Your task to perform on an android device: turn off smart reply in the gmail app Image 0: 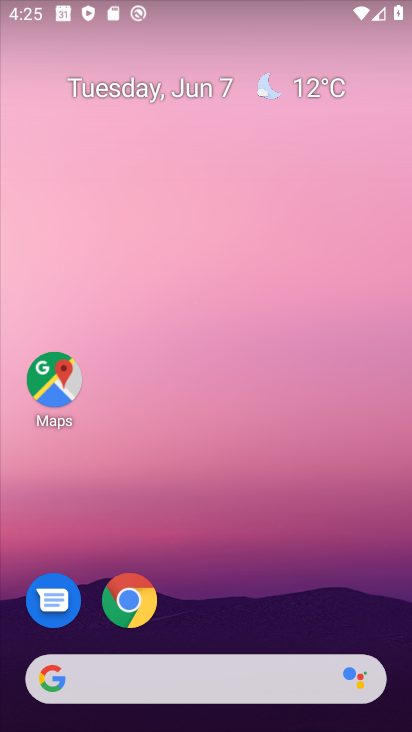
Step 0: drag from (212, 651) to (206, 306)
Your task to perform on an android device: turn off smart reply in the gmail app Image 1: 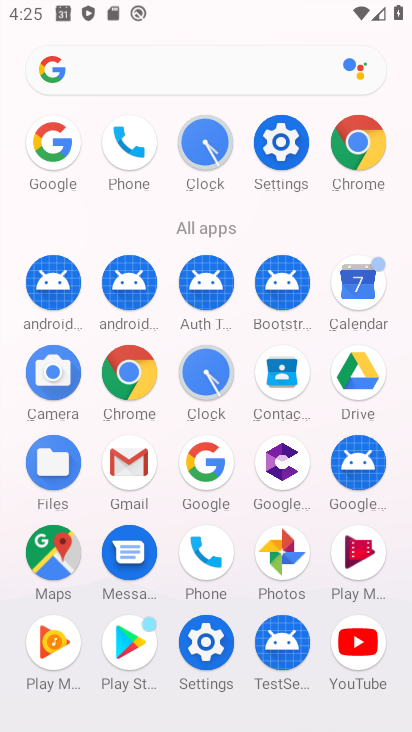
Step 1: click (142, 468)
Your task to perform on an android device: turn off smart reply in the gmail app Image 2: 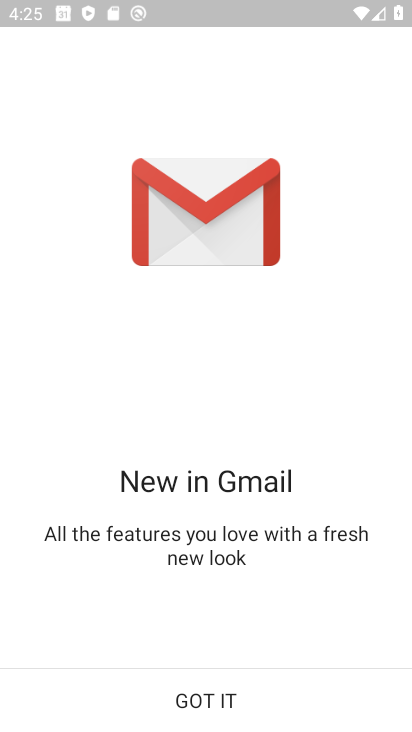
Step 2: click (180, 707)
Your task to perform on an android device: turn off smart reply in the gmail app Image 3: 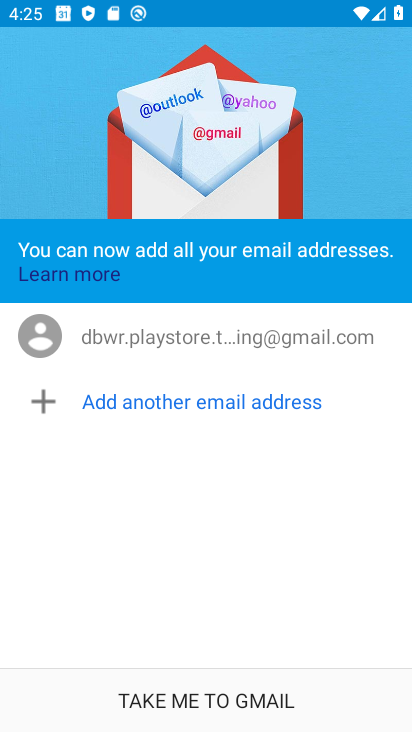
Step 3: click (180, 707)
Your task to perform on an android device: turn off smart reply in the gmail app Image 4: 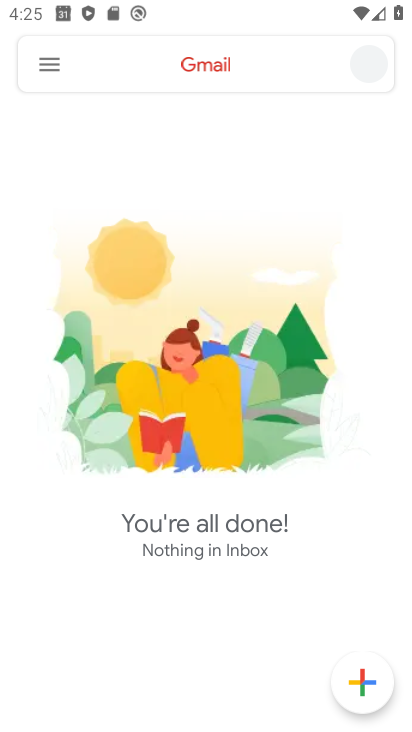
Step 4: click (55, 62)
Your task to perform on an android device: turn off smart reply in the gmail app Image 5: 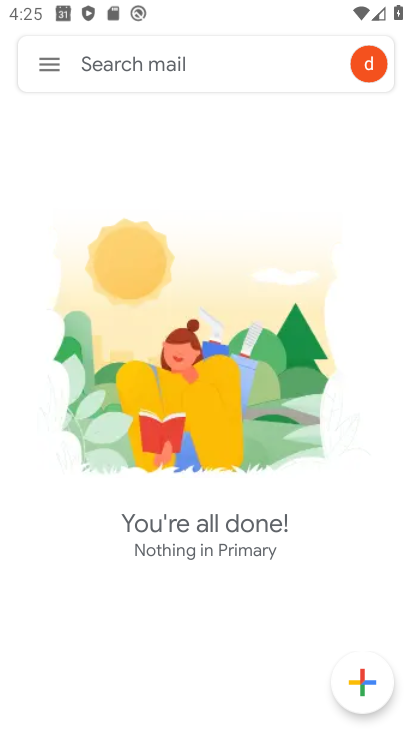
Step 5: click (46, 74)
Your task to perform on an android device: turn off smart reply in the gmail app Image 6: 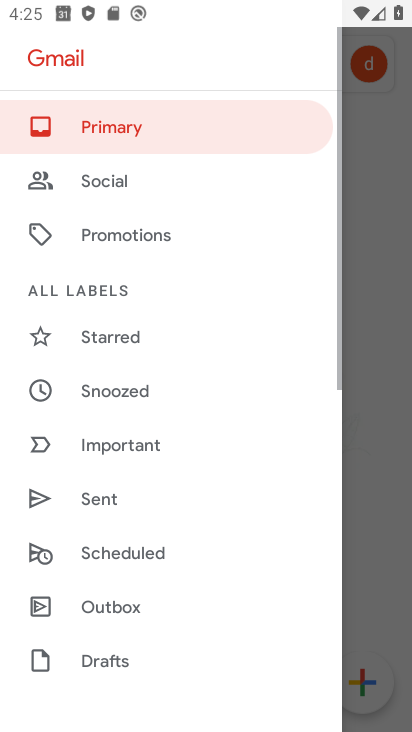
Step 6: drag from (128, 679) to (136, 283)
Your task to perform on an android device: turn off smart reply in the gmail app Image 7: 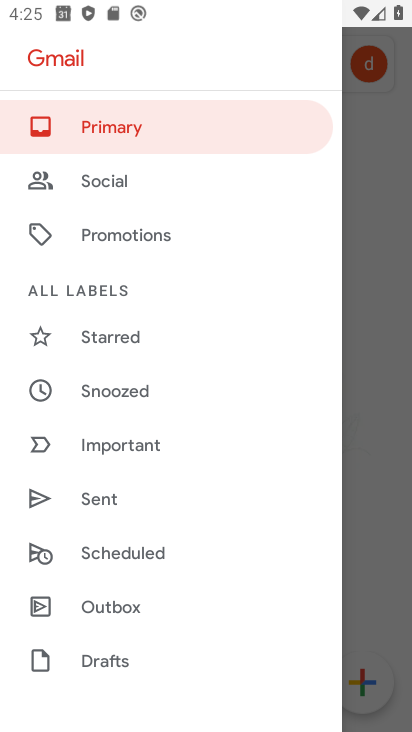
Step 7: drag from (118, 634) to (113, 202)
Your task to perform on an android device: turn off smart reply in the gmail app Image 8: 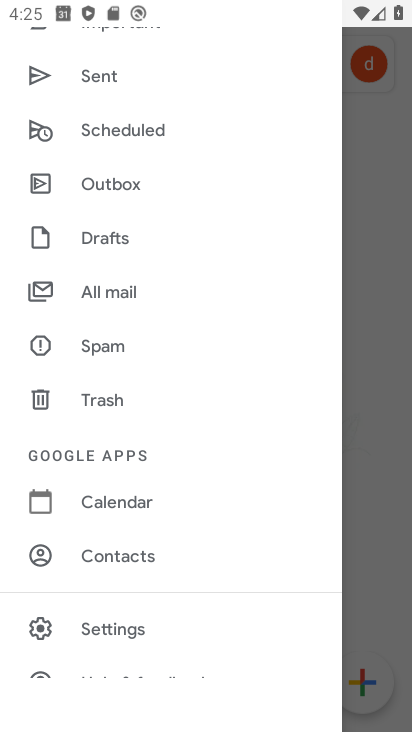
Step 8: click (125, 633)
Your task to perform on an android device: turn off smart reply in the gmail app Image 9: 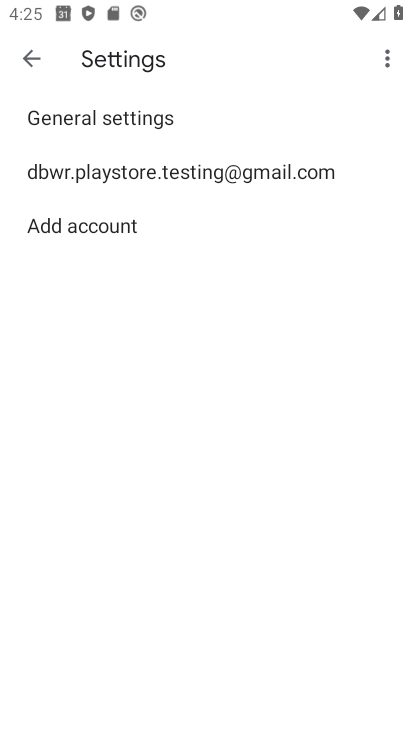
Step 9: click (101, 168)
Your task to perform on an android device: turn off smart reply in the gmail app Image 10: 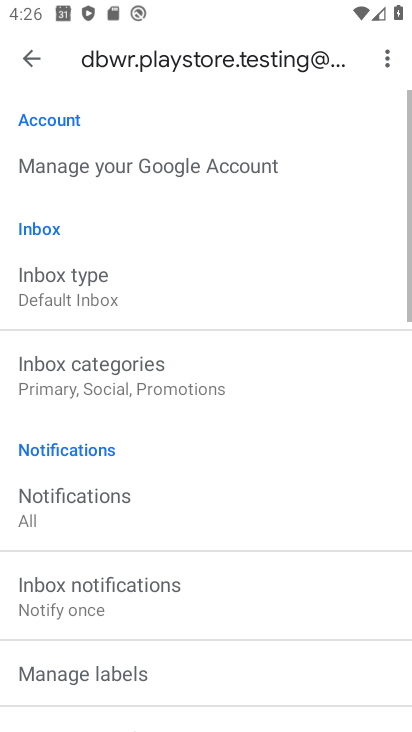
Step 10: drag from (78, 688) to (82, 279)
Your task to perform on an android device: turn off smart reply in the gmail app Image 11: 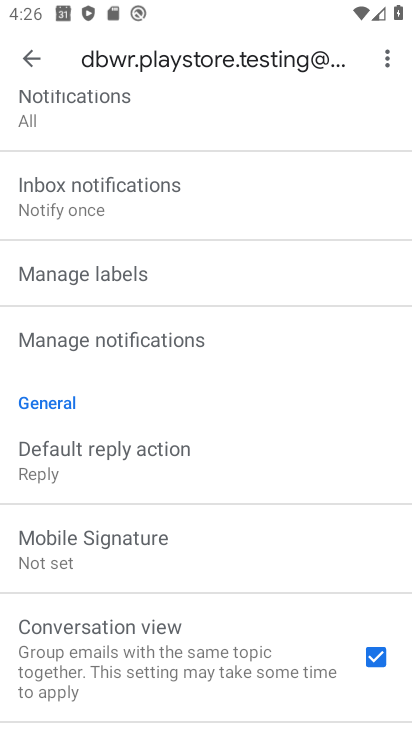
Step 11: drag from (108, 692) to (122, 295)
Your task to perform on an android device: turn off smart reply in the gmail app Image 12: 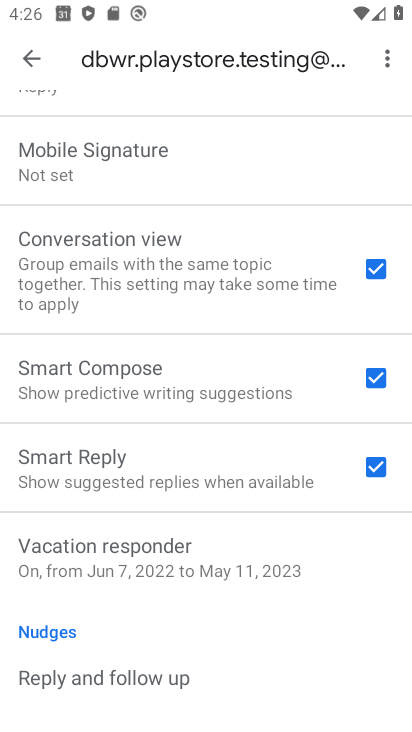
Step 12: click (379, 471)
Your task to perform on an android device: turn off smart reply in the gmail app Image 13: 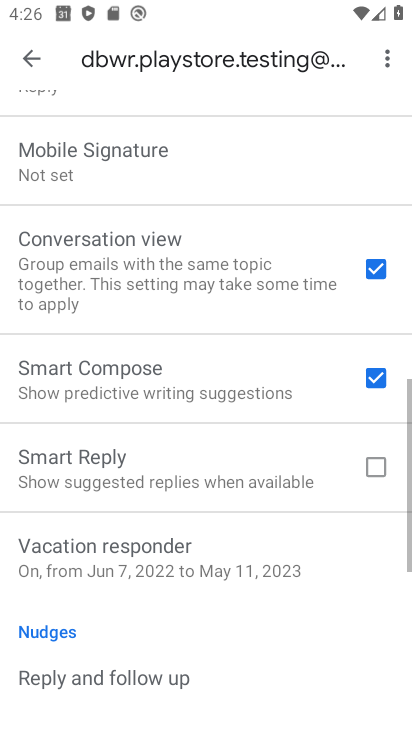
Step 13: task complete